Your task to perform on an android device: Open Google Image 0: 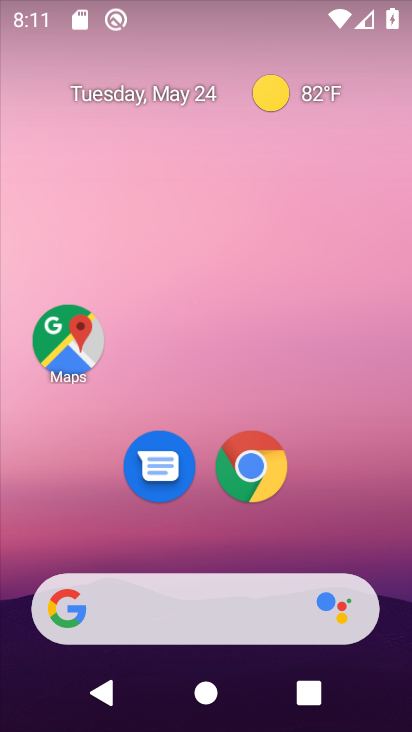
Step 0: drag from (157, 568) to (216, 138)
Your task to perform on an android device: Open Google Image 1: 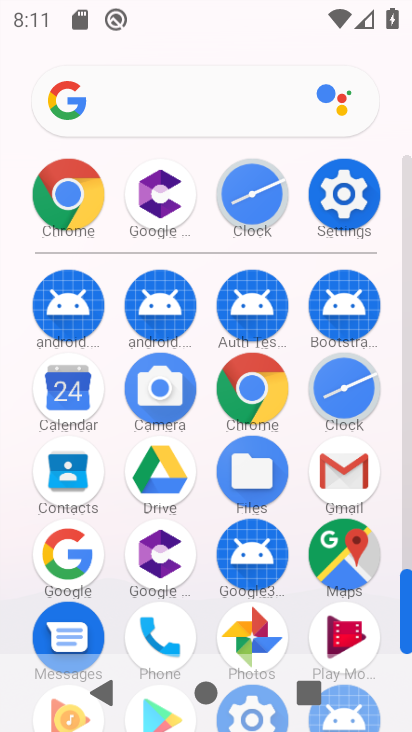
Step 1: click (361, 542)
Your task to perform on an android device: Open Google Image 2: 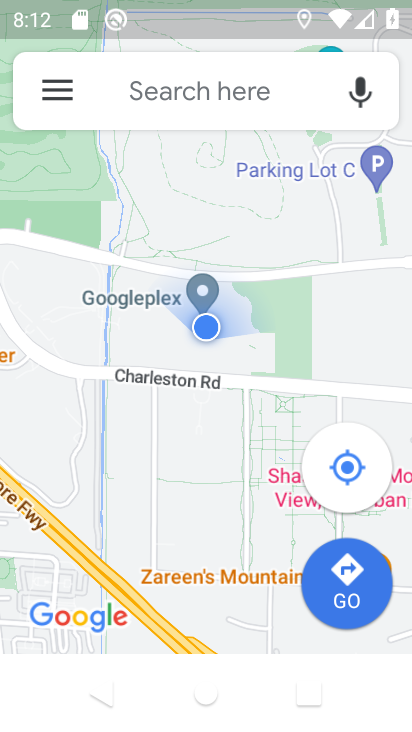
Step 2: task complete